Your task to perform on an android device: check the backup settings in the google photos Image 0: 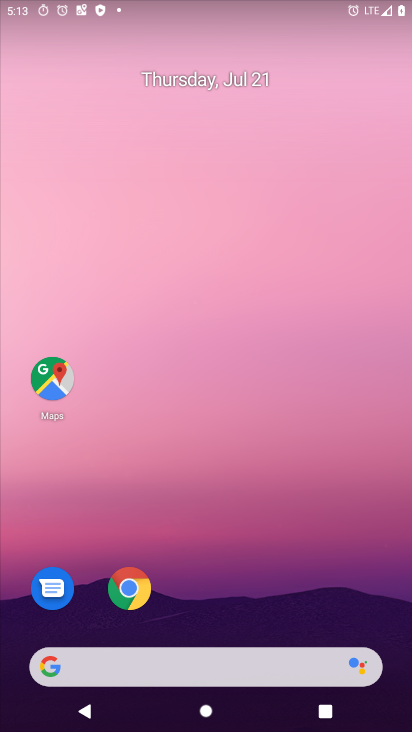
Step 0: drag from (275, 606) to (298, 102)
Your task to perform on an android device: check the backup settings in the google photos Image 1: 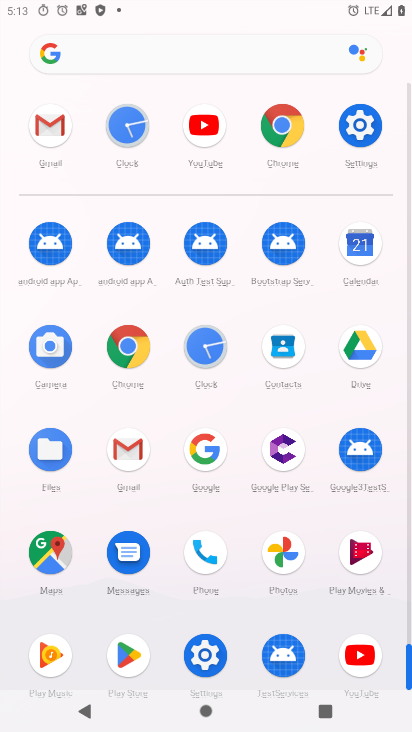
Step 1: click (282, 538)
Your task to perform on an android device: check the backup settings in the google photos Image 2: 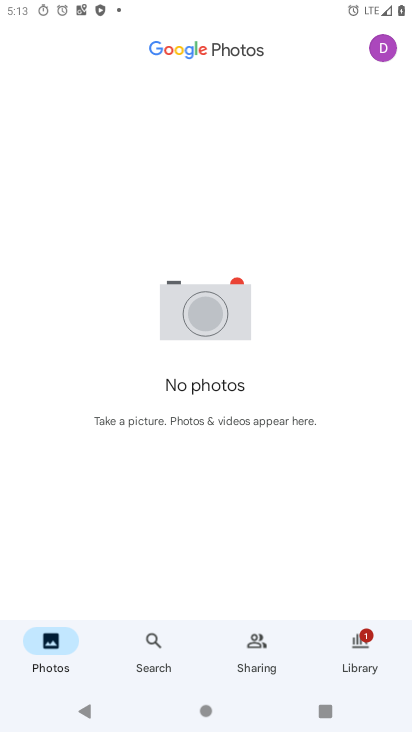
Step 2: click (382, 49)
Your task to perform on an android device: check the backup settings in the google photos Image 3: 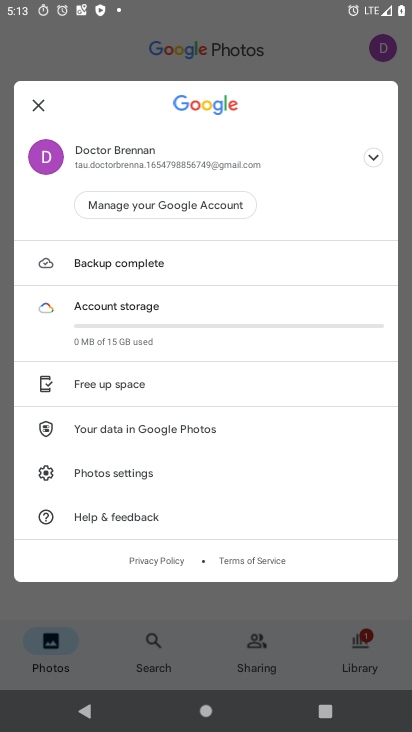
Step 3: click (101, 466)
Your task to perform on an android device: check the backup settings in the google photos Image 4: 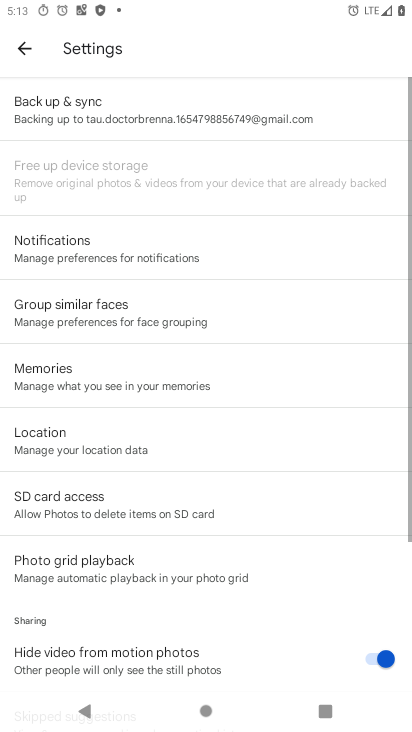
Step 4: click (94, 102)
Your task to perform on an android device: check the backup settings in the google photos Image 5: 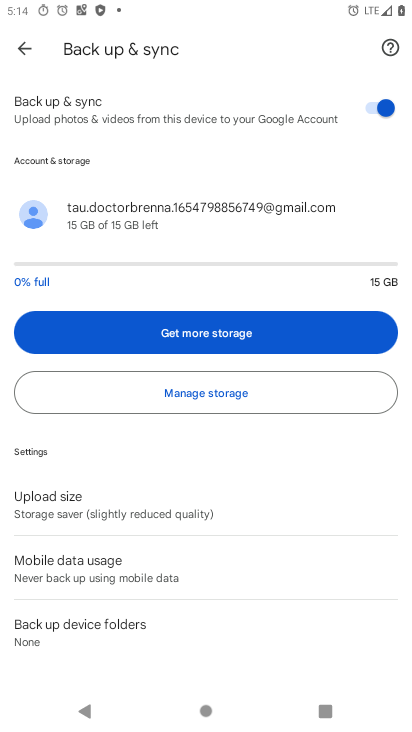
Step 5: click (67, 116)
Your task to perform on an android device: check the backup settings in the google photos Image 6: 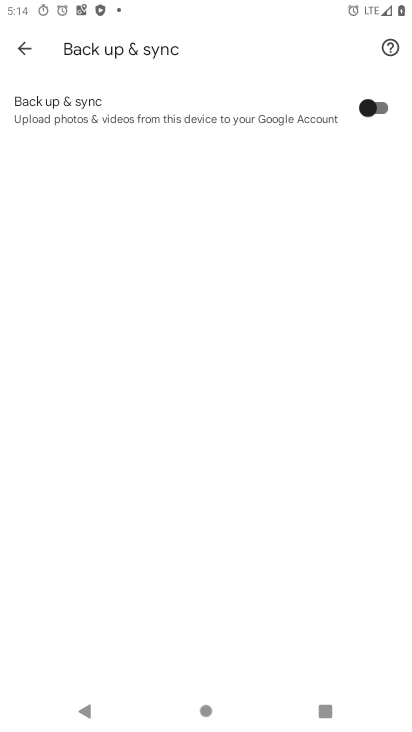
Step 6: click (67, 116)
Your task to perform on an android device: check the backup settings in the google photos Image 7: 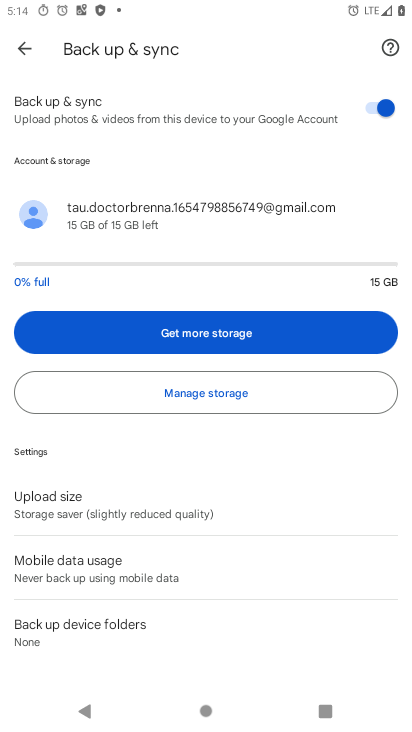
Step 7: task complete